Your task to perform on an android device: View the shopping cart on walmart. Add "razer huntsman" to the cart on walmart, then select checkout. Image 0: 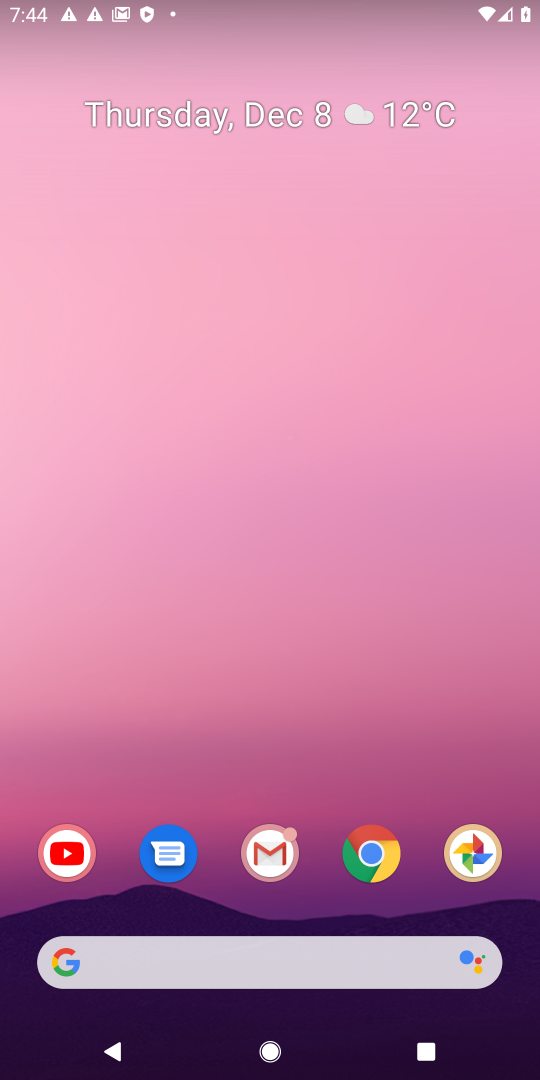
Step 0: click (188, 961)
Your task to perform on an android device: View the shopping cart on walmart. Add "razer huntsman" to the cart on walmart, then select checkout. Image 1: 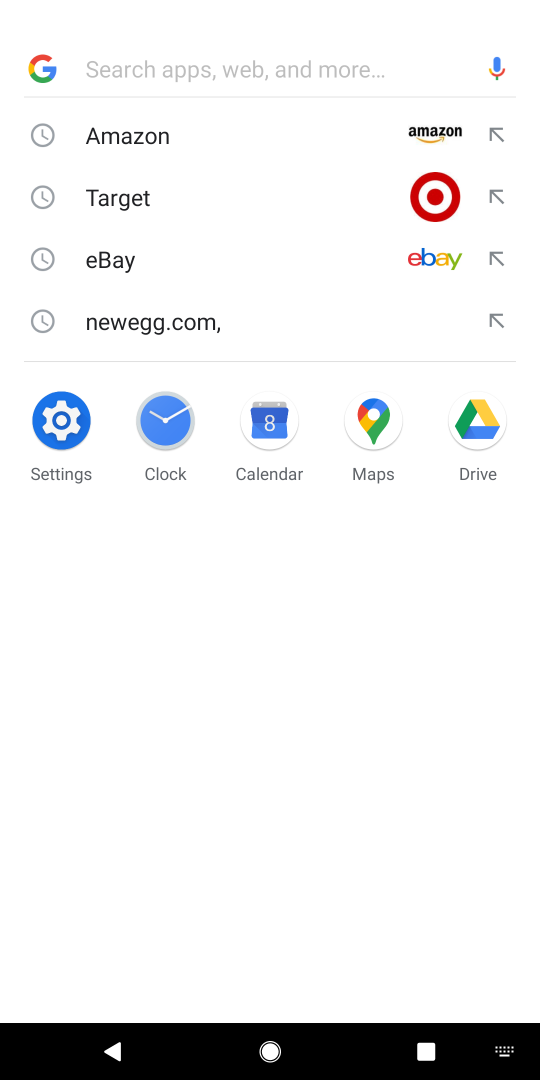
Step 1: type "walmart"
Your task to perform on an android device: View the shopping cart on walmart. Add "razer huntsman" to the cart on walmart, then select checkout. Image 2: 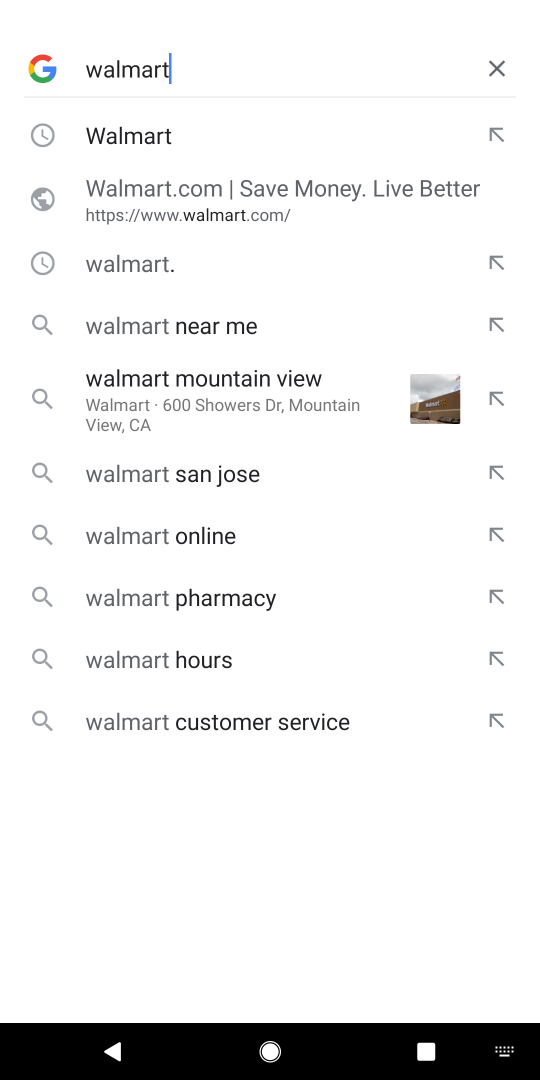
Step 2: click (113, 143)
Your task to perform on an android device: View the shopping cart on walmart. Add "razer huntsman" to the cart on walmart, then select checkout. Image 3: 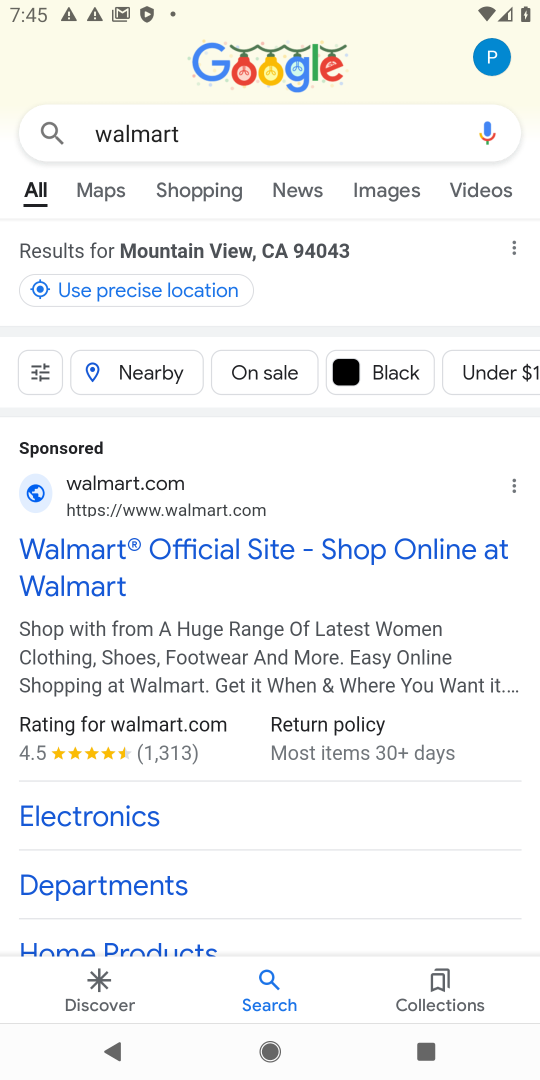
Step 3: click (99, 485)
Your task to perform on an android device: View the shopping cart on walmart. Add "razer huntsman" to the cart on walmart, then select checkout. Image 4: 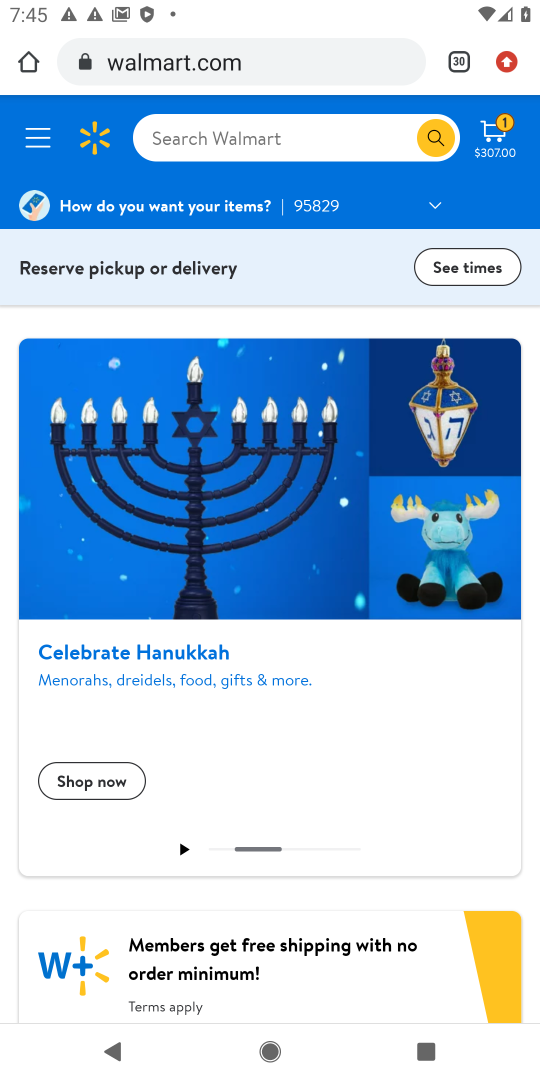
Step 4: click (493, 131)
Your task to perform on an android device: View the shopping cart on walmart. Add "razer huntsman" to the cart on walmart, then select checkout. Image 5: 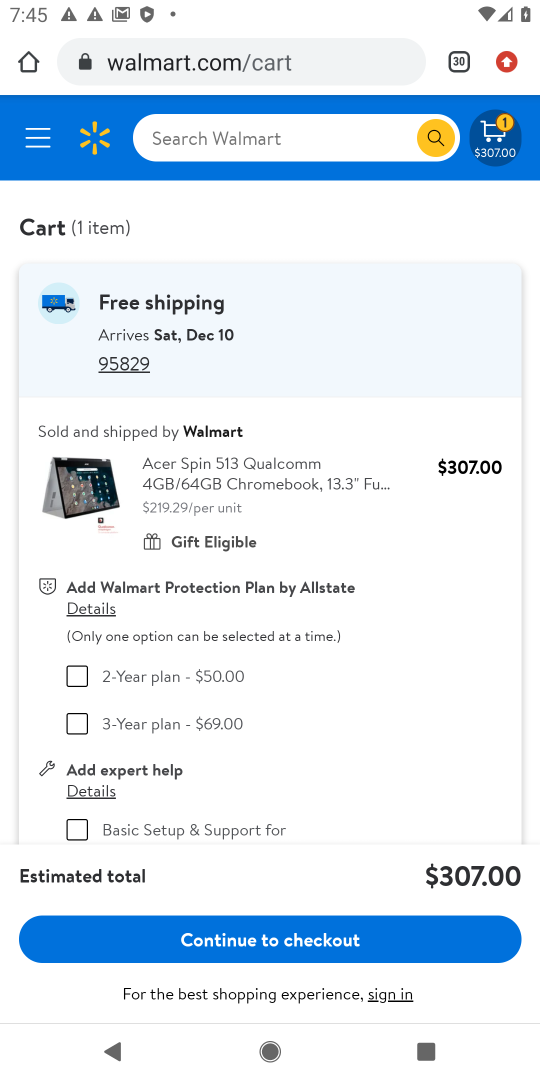
Step 5: click (228, 137)
Your task to perform on an android device: View the shopping cart on walmart. Add "razer huntsman" to the cart on walmart, then select checkout. Image 6: 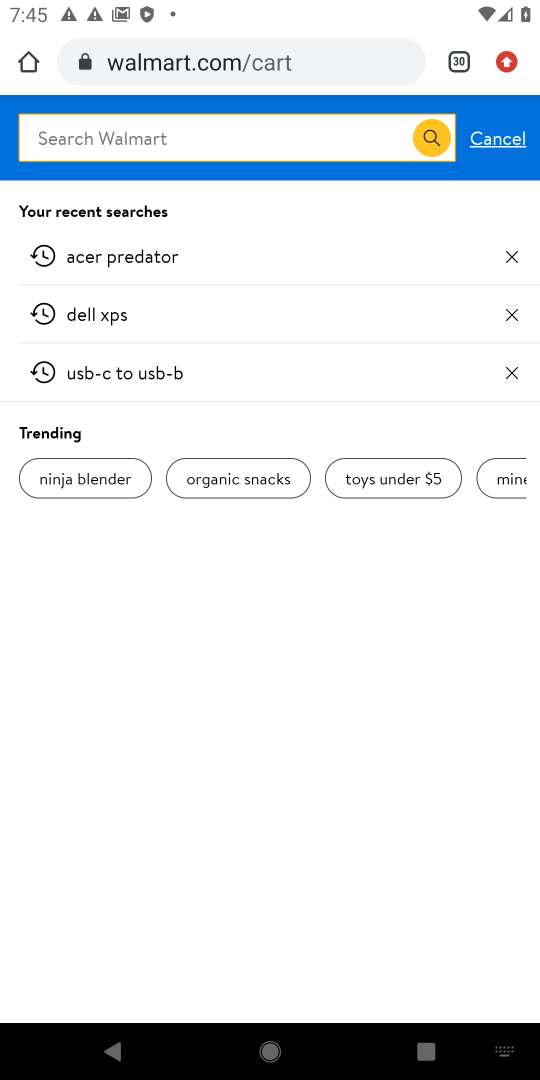
Step 6: type "razer huntsman"
Your task to perform on an android device: View the shopping cart on walmart. Add "razer huntsman" to the cart on walmart, then select checkout. Image 7: 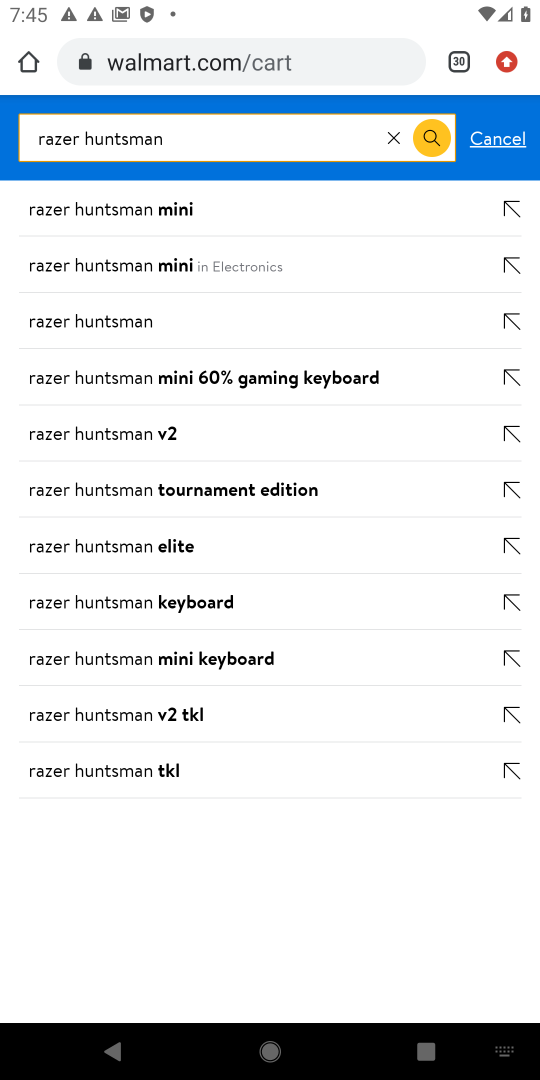
Step 7: click (106, 323)
Your task to perform on an android device: View the shopping cart on walmart. Add "razer huntsman" to the cart on walmart, then select checkout. Image 8: 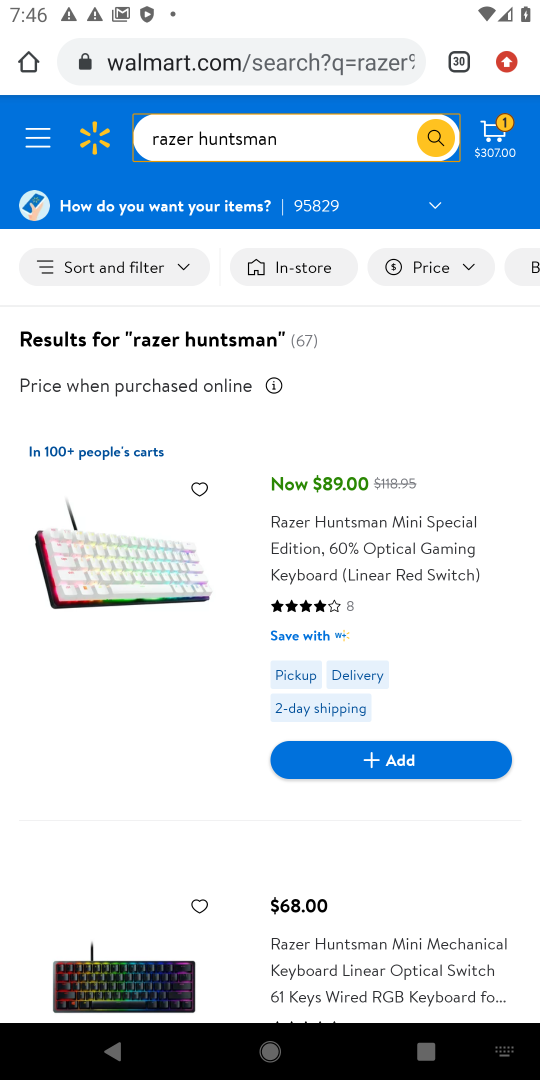
Step 8: click (378, 756)
Your task to perform on an android device: View the shopping cart on walmart. Add "razer huntsman" to the cart on walmart, then select checkout. Image 9: 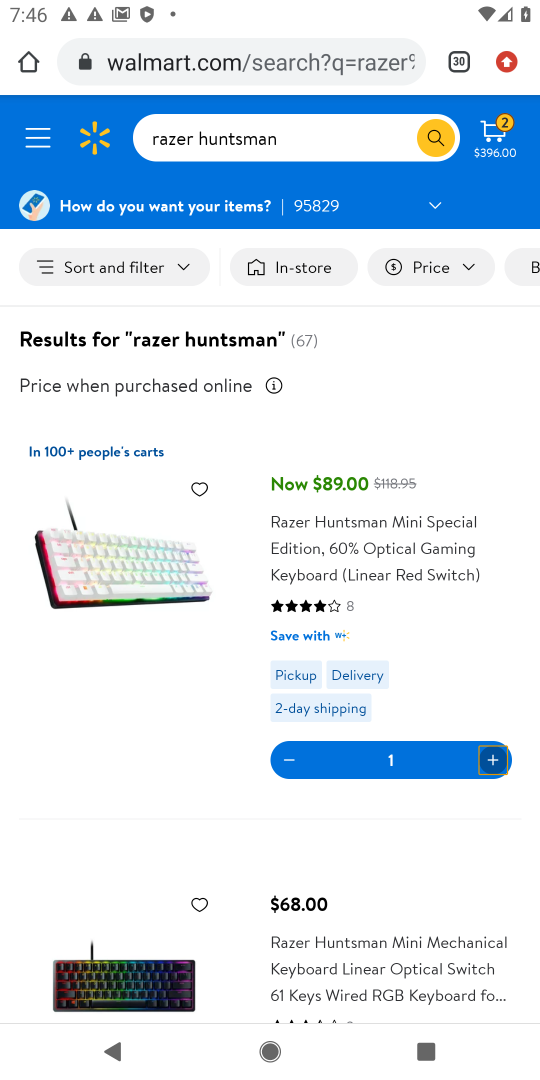
Step 9: click (495, 134)
Your task to perform on an android device: View the shopping cart on walmart. Add "razer huntsman" to the cart on walmart, then select checkout. Image 10: 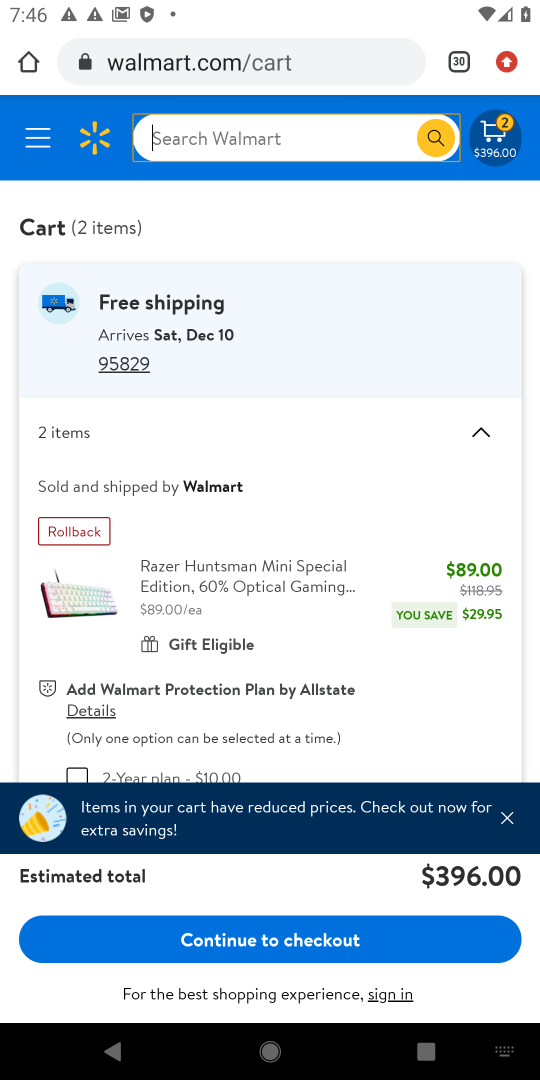
Step 10: click (290, 939)
Your task to perform on an android device: View the shopping cart on walmart. Add "razer huntsman" to the cart on walmart, then select checkout. Image 11: 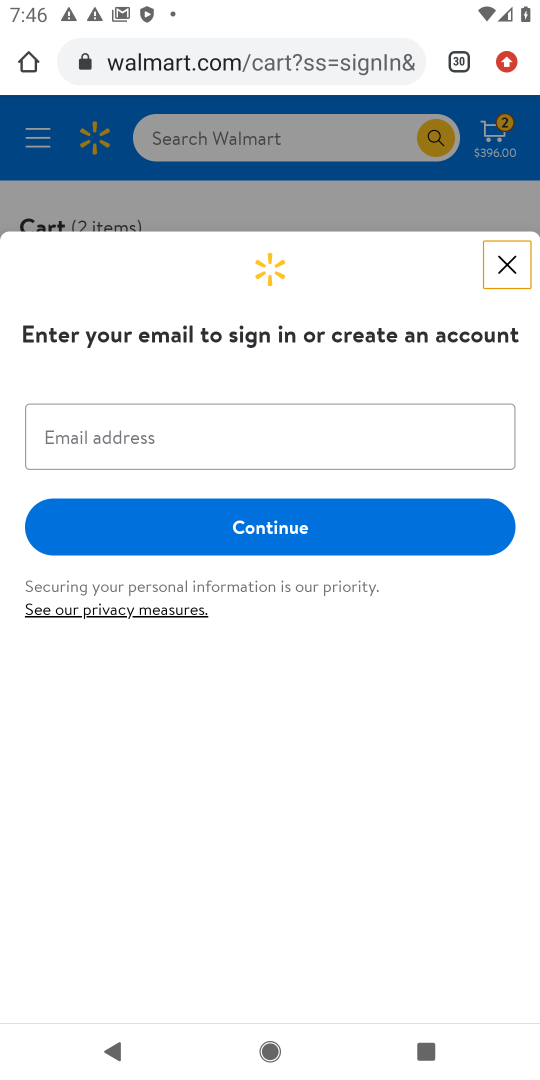
Step 11: task complete